Your task to perform on an android device: move an email to a new category in the gmail app Image 0: 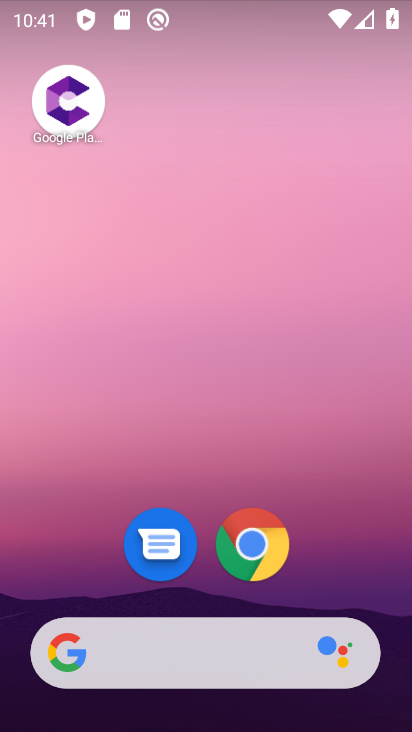
Step 0: drag from (215, 347) to (200, 204)
Your task to perform on an android device: move an email to a new category in the gmail app Image 1: 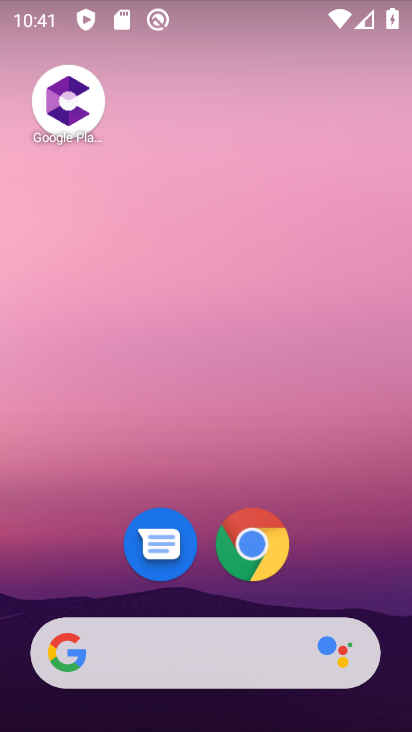
Step 1: drag from (187, 622) to (129, 33)
Your task to perform on an android device: move an email to a new category in the gmail app Image 2: 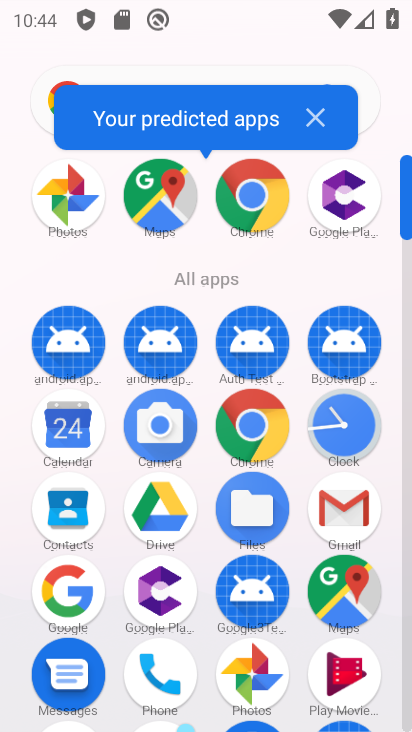
Step 2: click (347, 510)
Your task to perform on an android device: move an email to a new category in the gmail app Image 3: 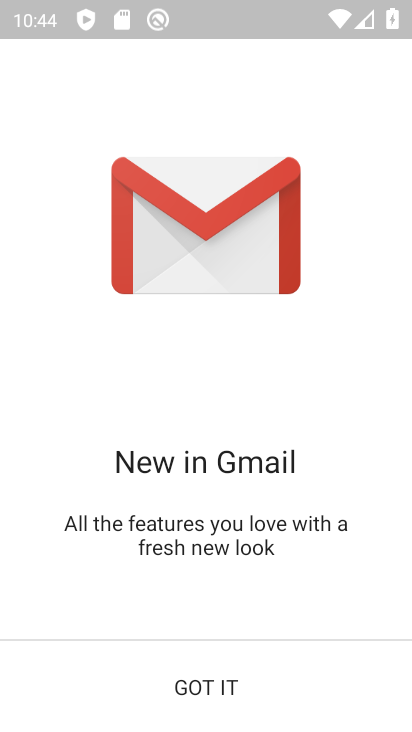
Step 3: click (230, 707)
Your task to perform on an android device: move an email to a new category in the gmail app Image 4: 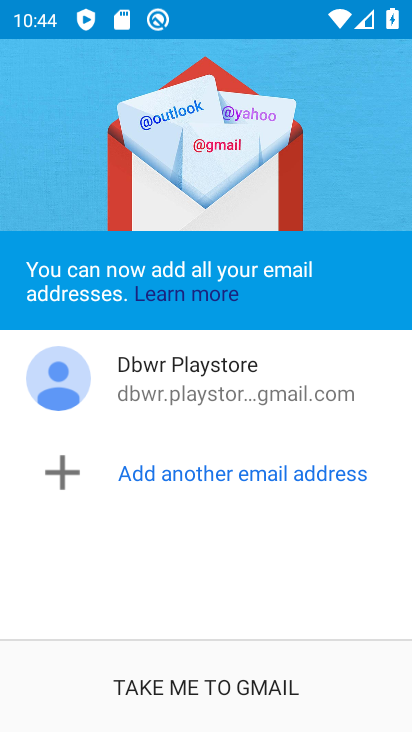
Step 4: click (253, 683)
Your task to perform on an android device: move an email to a new category in the gmail app Image 5: 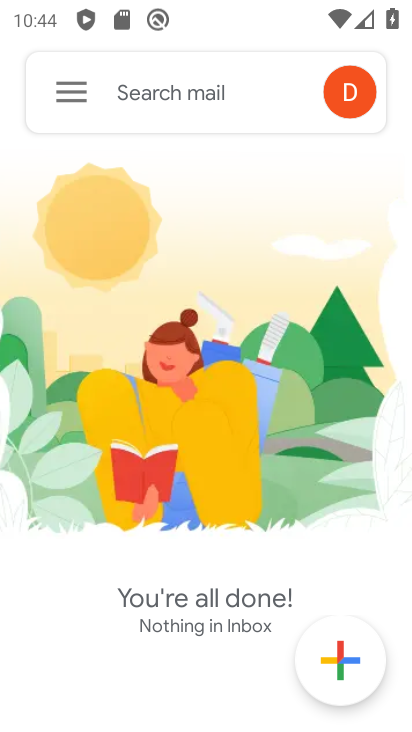
Step 5: click (66, 85)
Your task to perform on an android device: move an email to a new category in the gmail app Image 6: 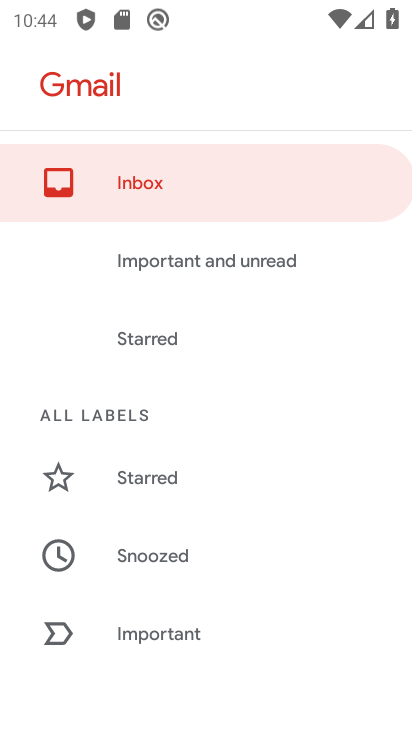
Step 6: drag from (158, 616) to (124, 146)
Your task to perform on an android device: move an email to a new category in the gmail app Image 7: 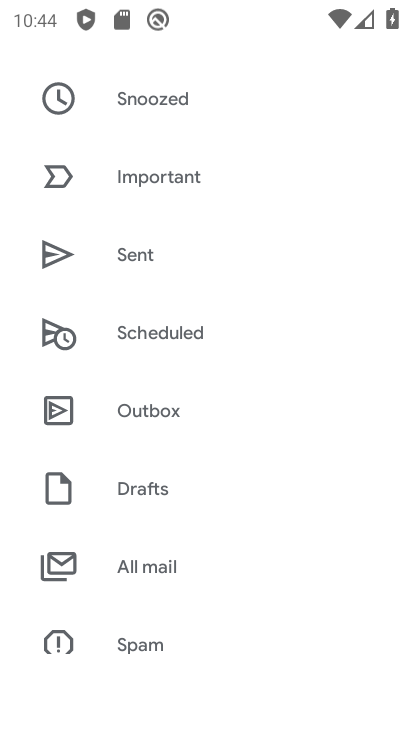
Step 7: click (188, 573)
Your task to perform on an android device: move an email to a new category in the gmail app Image 8: 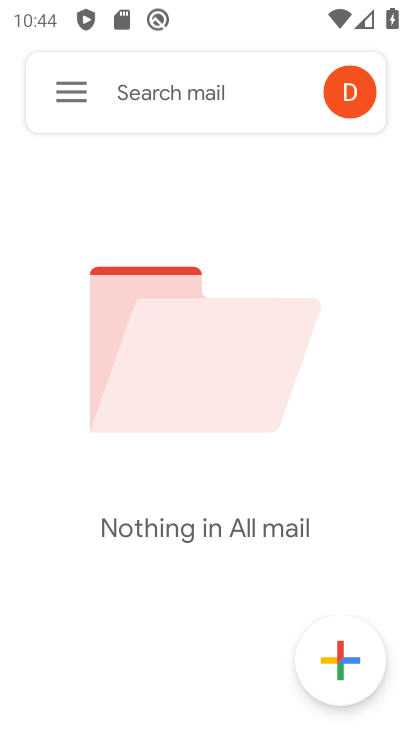
Step 8: task complete